Your task to perform on an android device: Open Amazon Image 0: 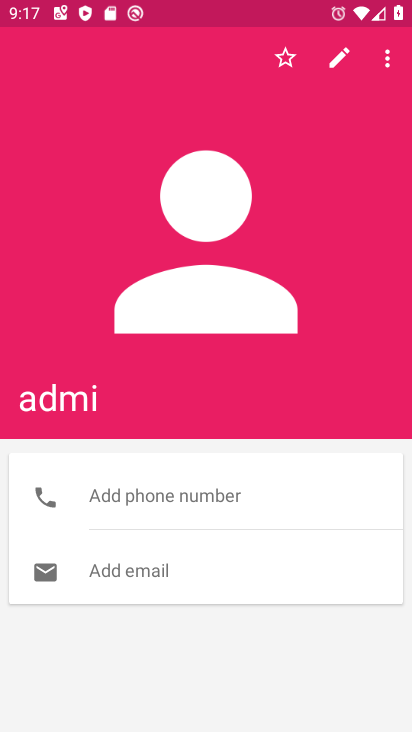
Step 0: press home button
Your task to perform on an android device: Open Amazon Image 1: 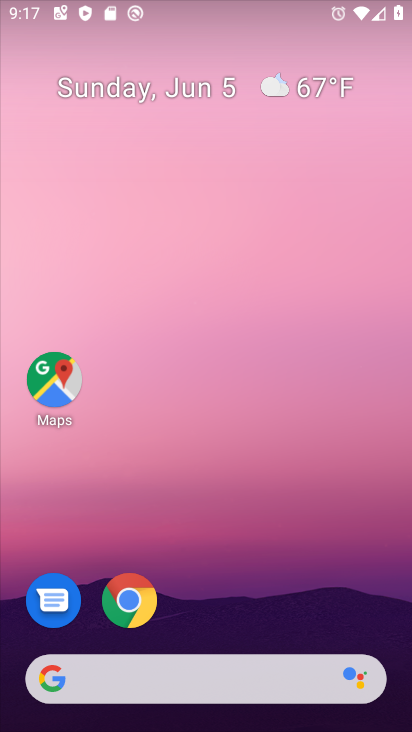
Step 1: drag from (392, 624) to (298, 35)
Your task to perform on an android device: Open Amazon Image 2: 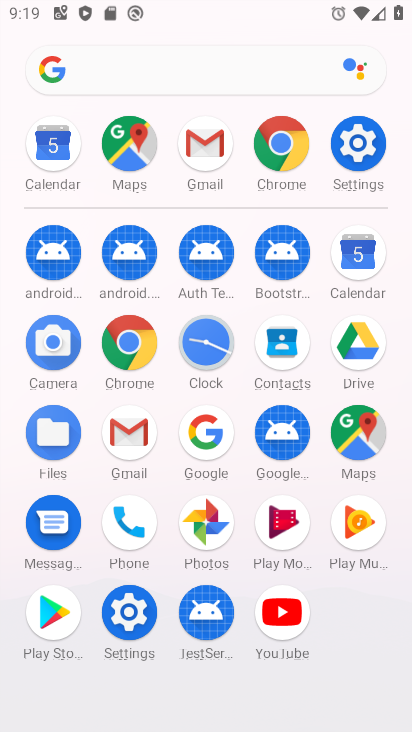
Step 2: click (208, 439)
Your task to perform on an android device: Open Amazon Image 3: 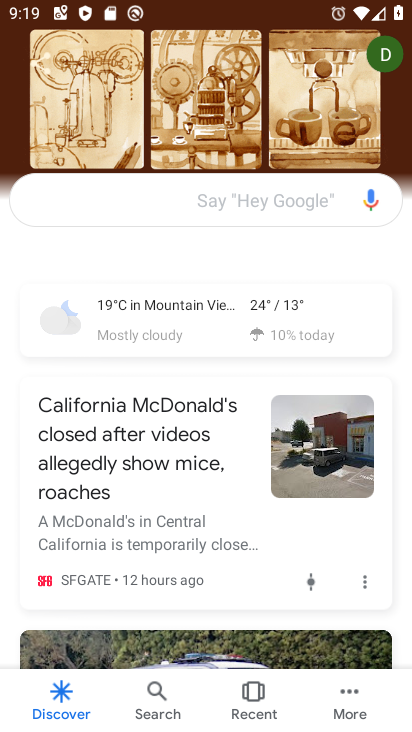
Step 3: click (153, 198)
Your task to perform on an android device: Open Amazon Image 4: 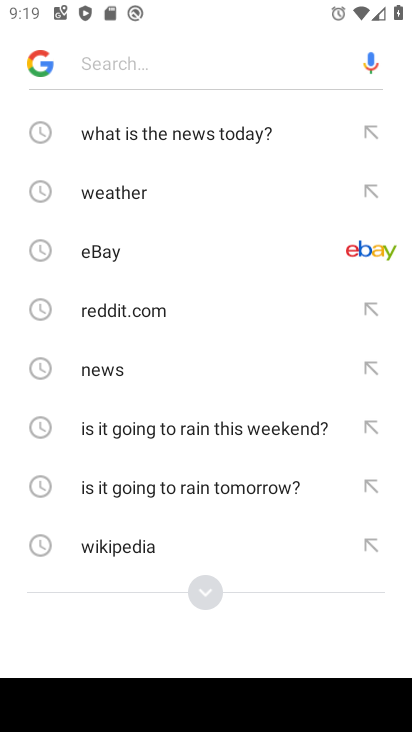
Step 4: click (205, 593)
Your task to perform on an android device: Open Amazon Image 5: 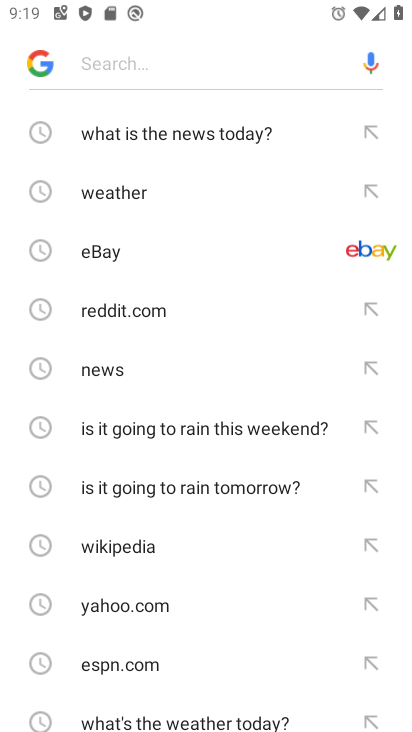
Step 5: drag from (133, 644) to (143, 188)
Your task to perform on an android device: Open Amazon Image 6: 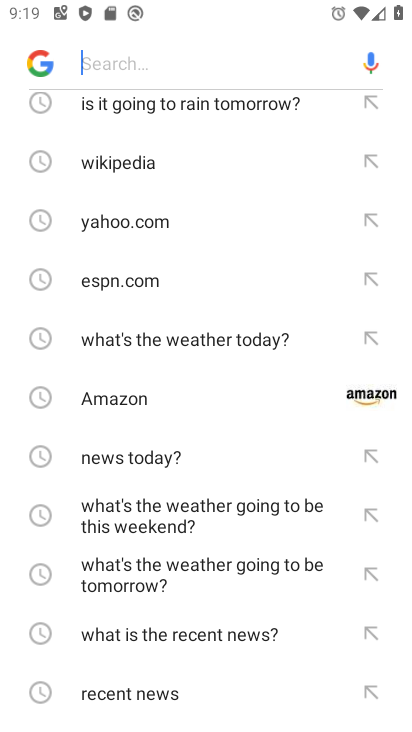
Step 6: click (159, 393)
Your task to perform on an android device: Open Amazon Image 7: 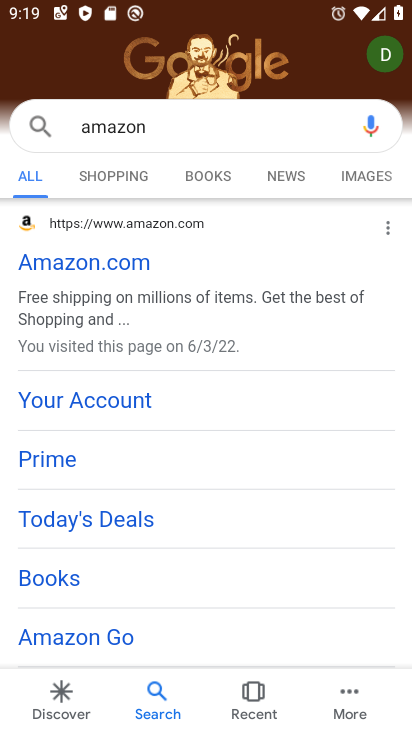
Step 7: task complete